Your task to perform on an android device: find snoozed emails in the gmail app Image 0: 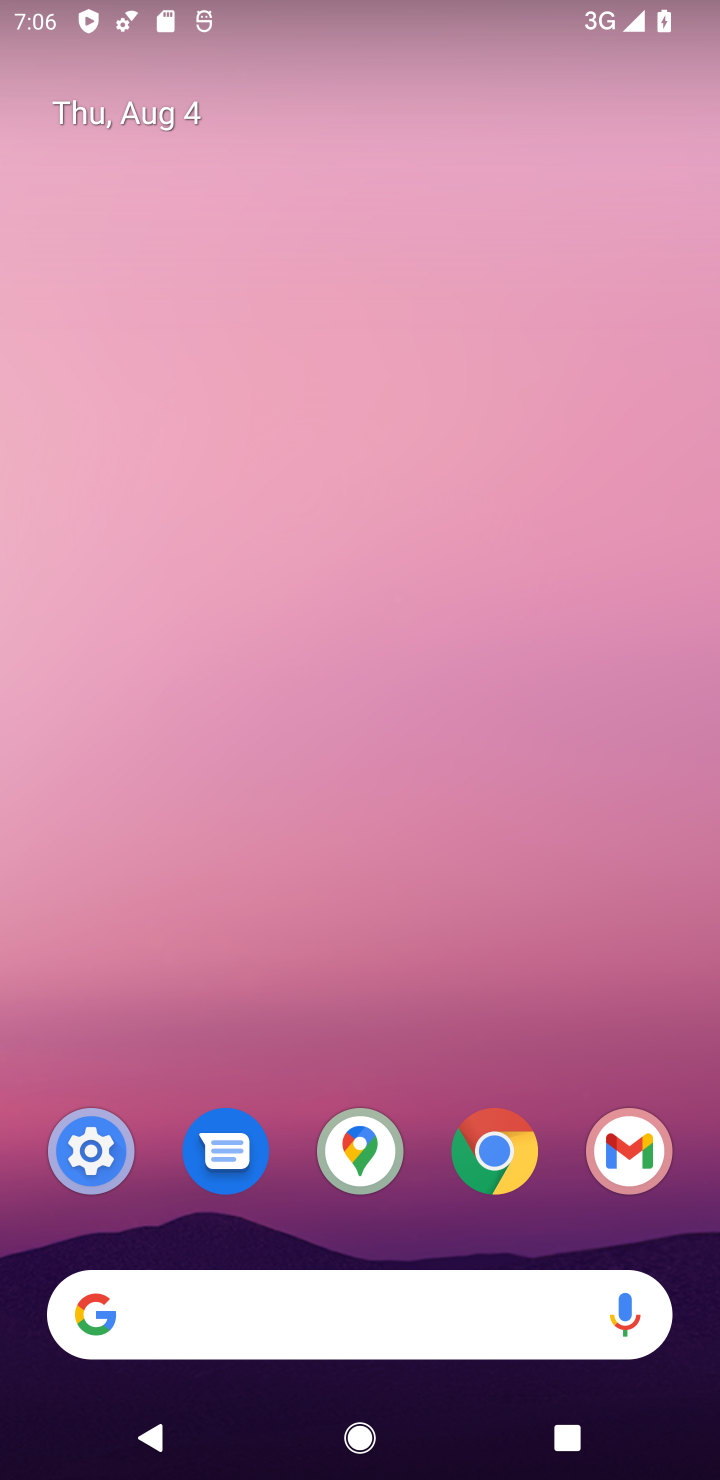
Step 0: drag from (657, 1082) to (508, 264)
Your task to perform on an android device: find snoozed emails in the gmail app Image 1: 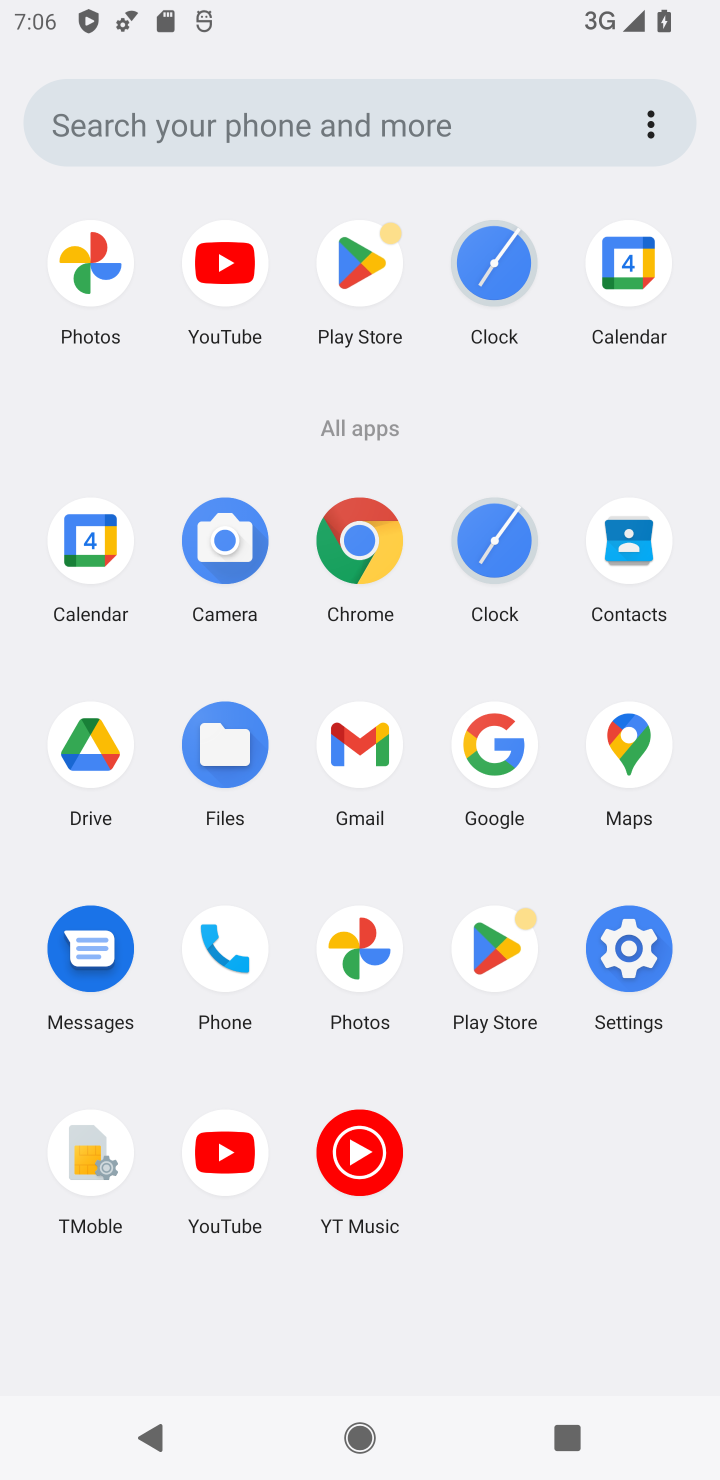
Step 1: click (363, 757)
Your task to perform on an android device: find snoozed emails in the gmail app Image 2: 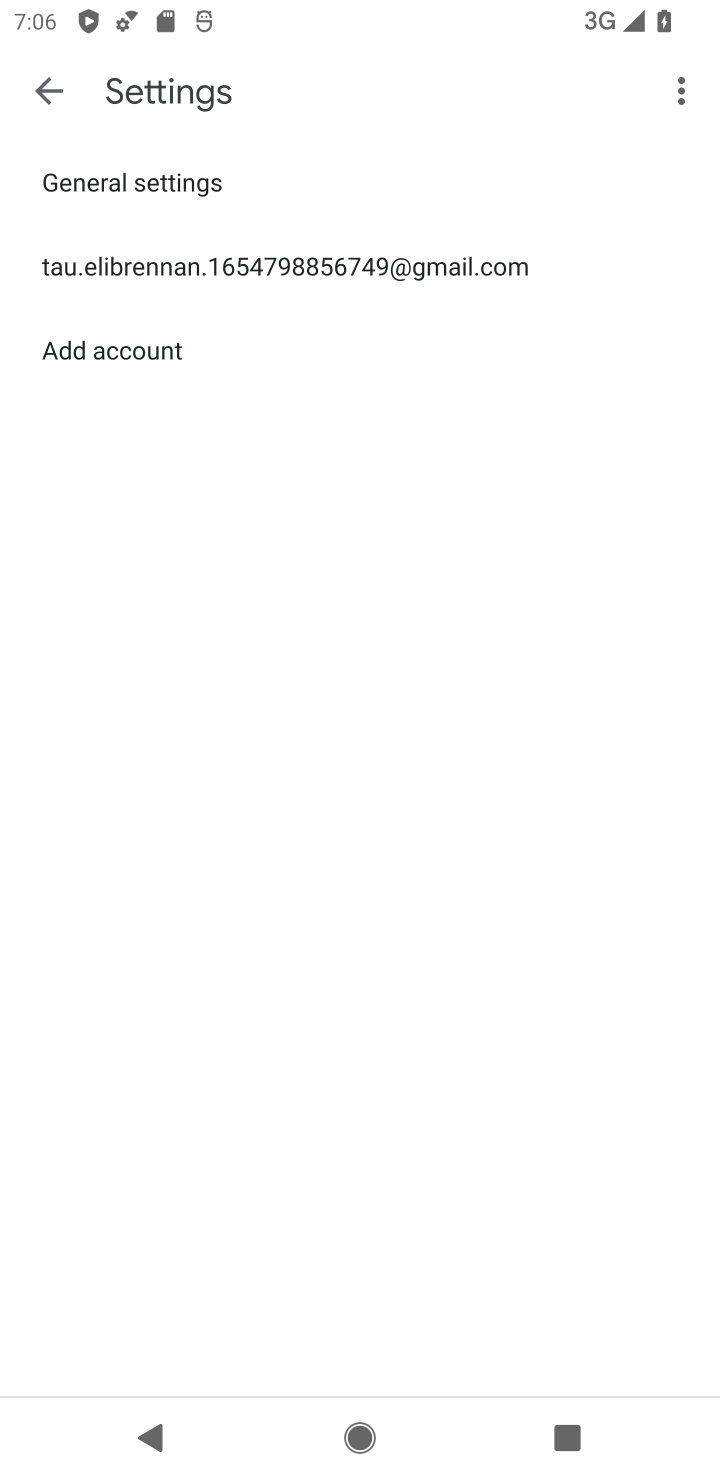
Step 2: click (144, 97)
Your task to perform on an android device: find snoozed emails in the gmail app Image 3: 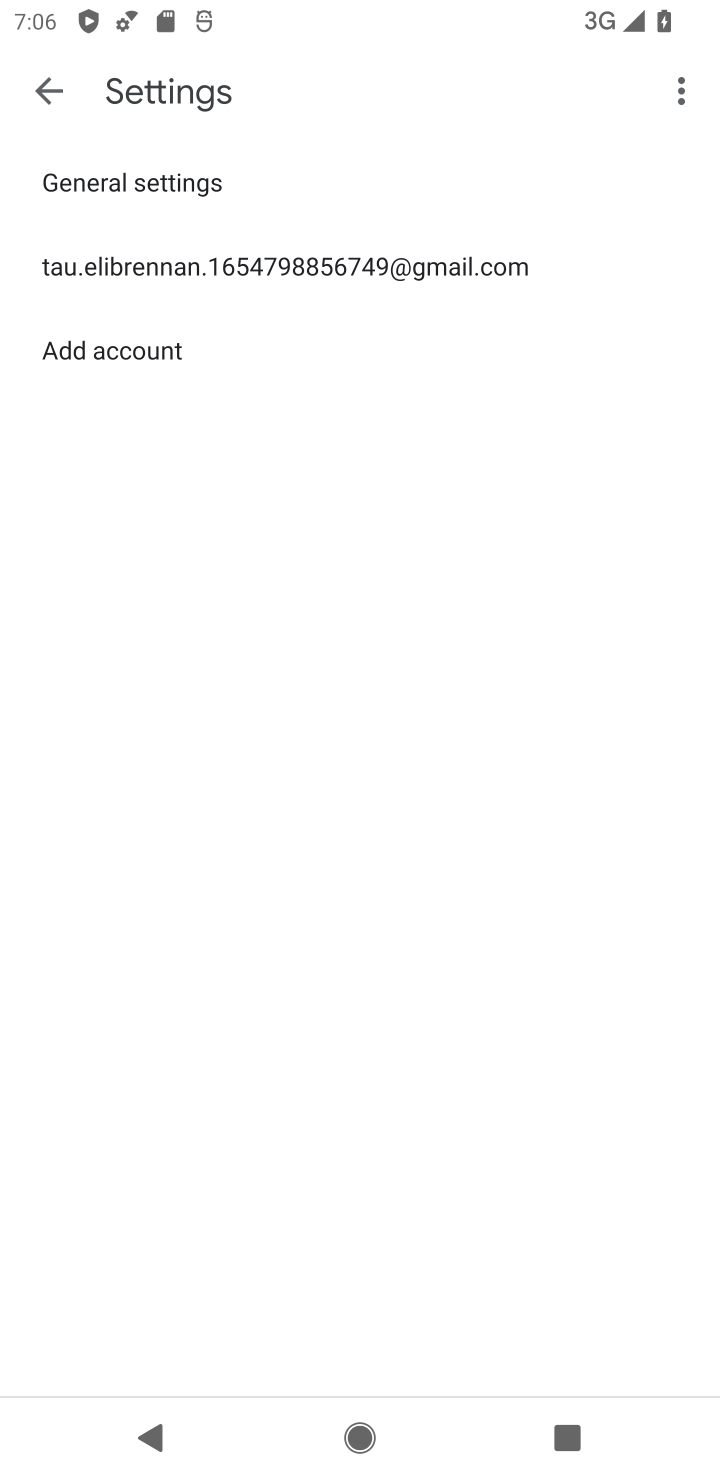
Step 3: click (52, 79)
Your task to perform on an android device: find snoozed emails in the gmail app Image 4: 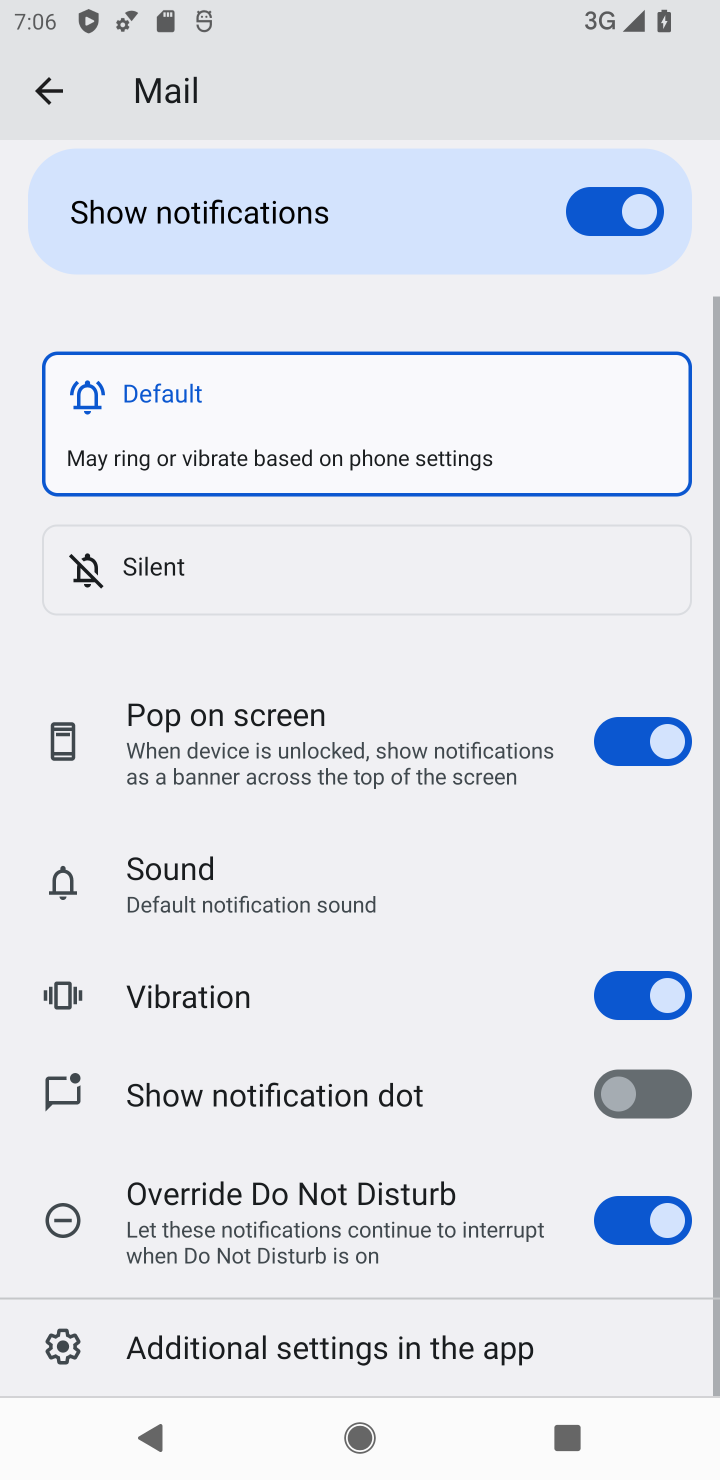
Step 4: click (51, 79)
Your task to perform on an android device: find snoozed emails in the gmail app Image 5: 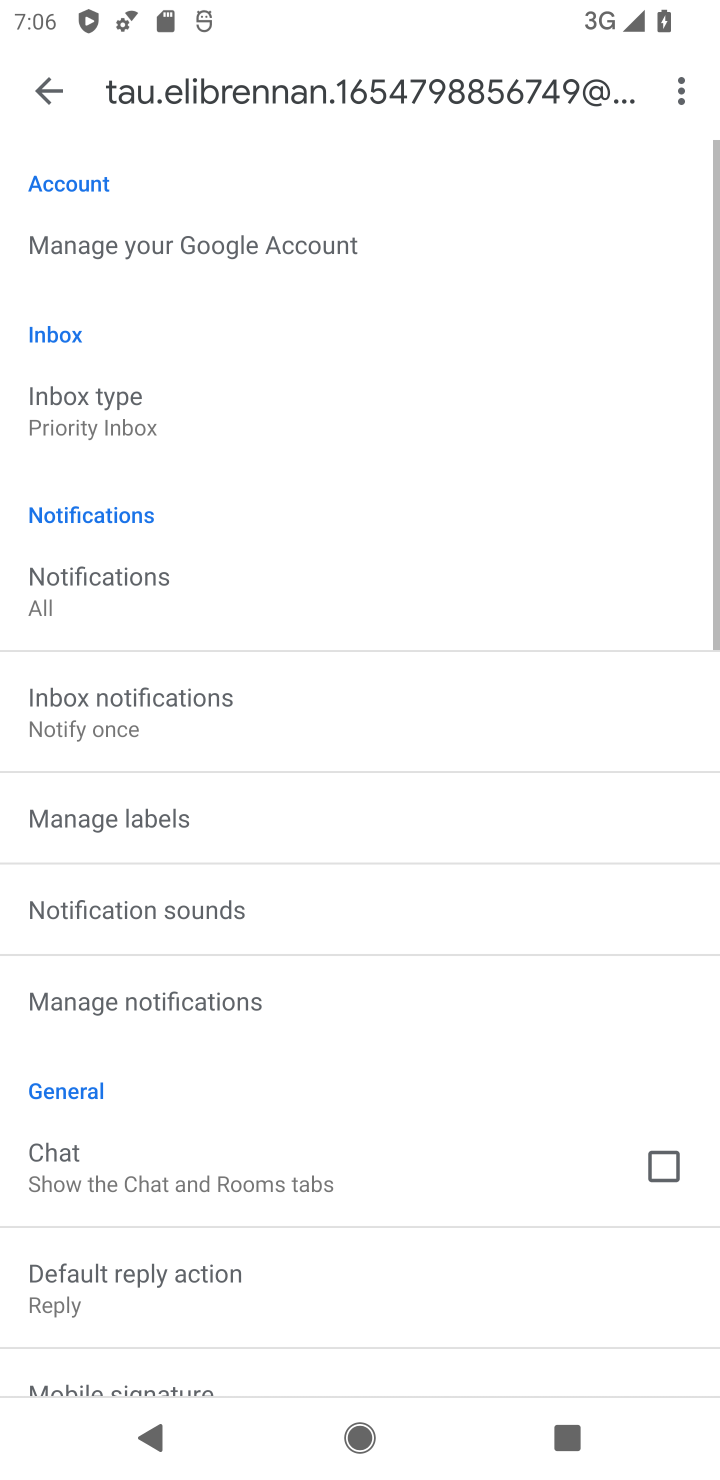
Step 5: click (51, 79)
Your task to perform on an android device: find snoozed emails in the gmail app Image 6: 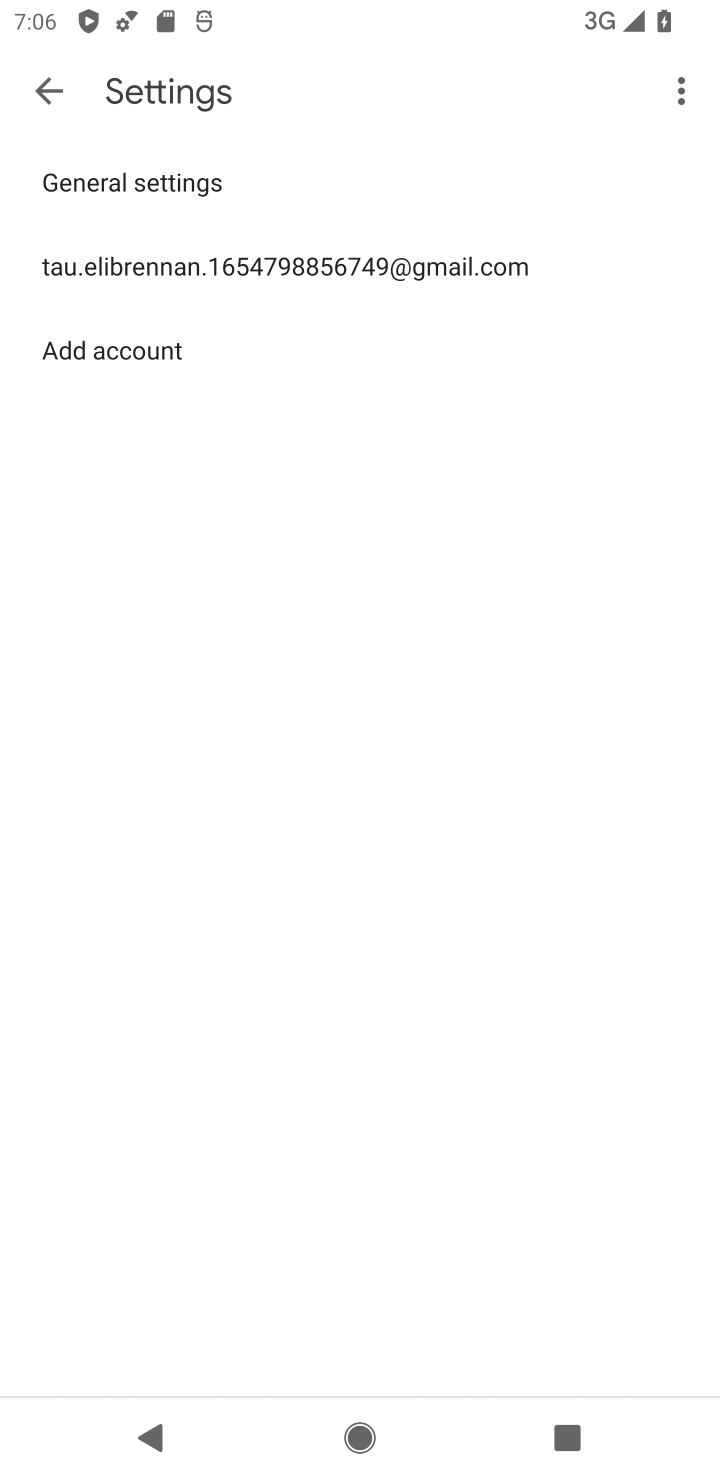
Step 6: click (51, 79)
Your task to perform on an android device: find snoozed emails in the gmail app Image 7: 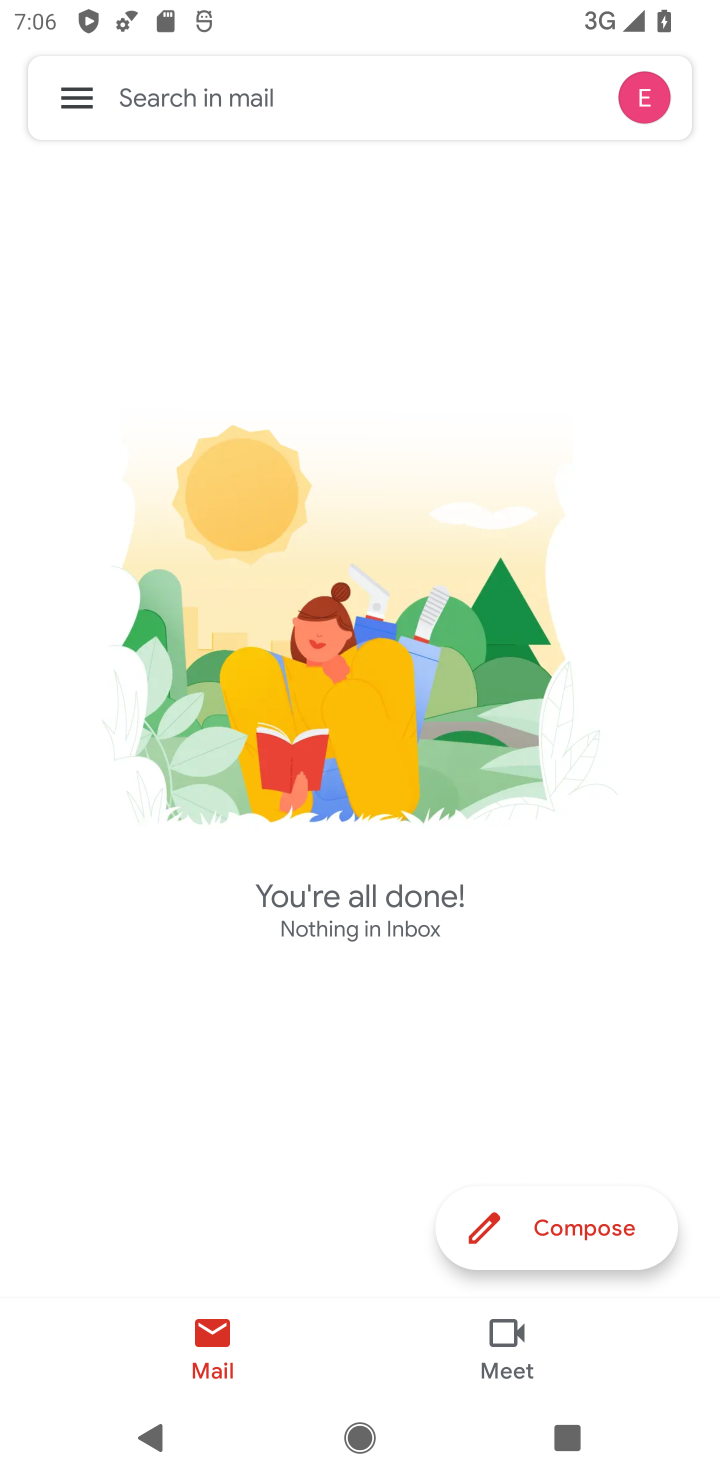
Step 7: click (51, 79)
Your task to perform on an android device: find snoozed emails in the gmail app Image 8: 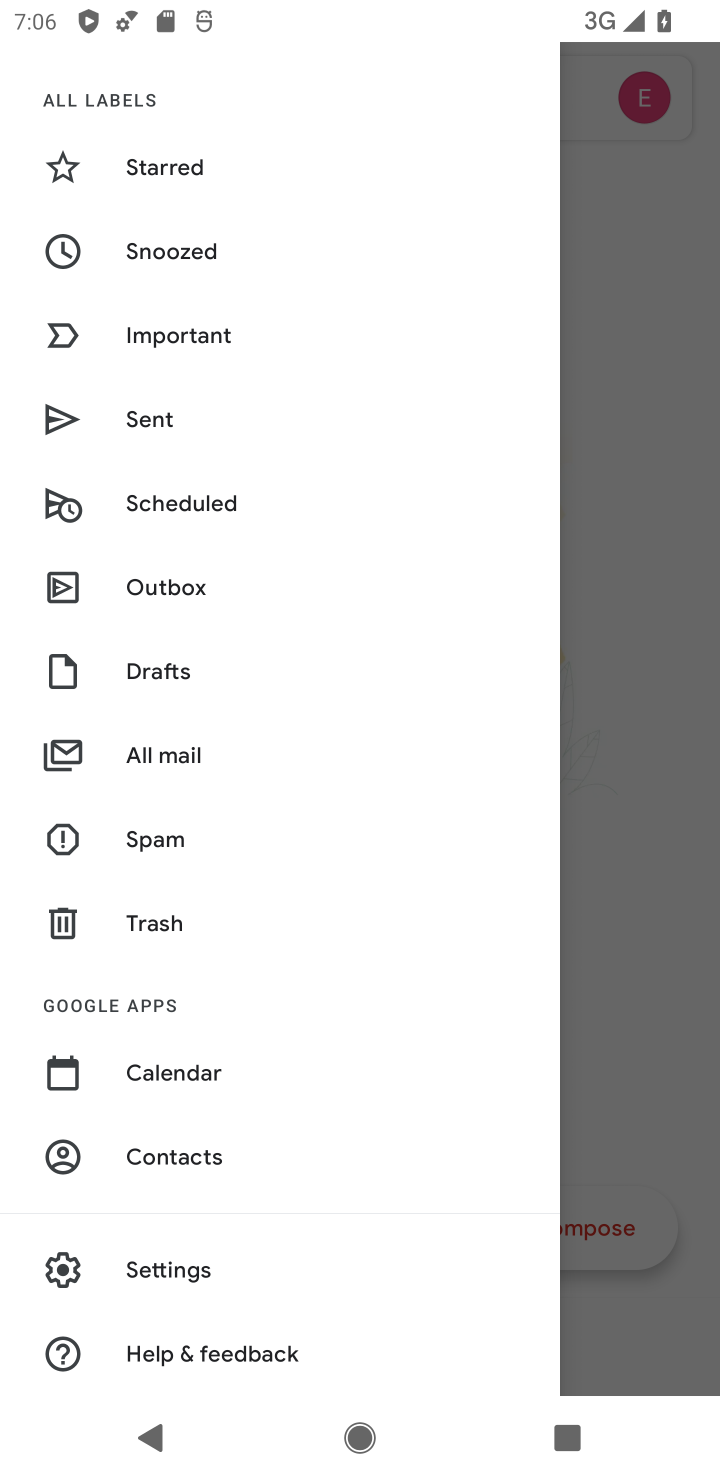
Step 8: click (213, 280)
Your task to perform on an android device: find snoozed emails in the gmail app Image 9: 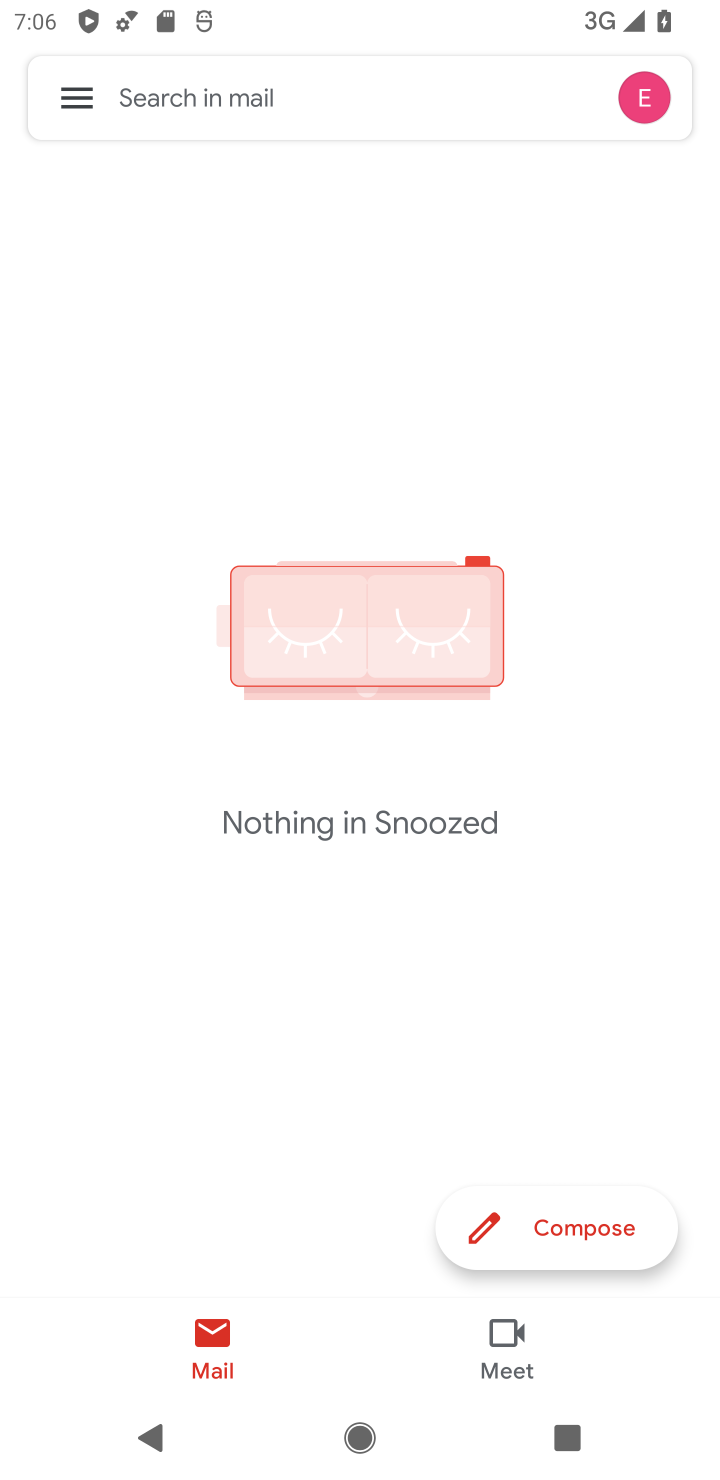
Step 9: task complete